Your task to perform on an android device: turn off location Image 0: 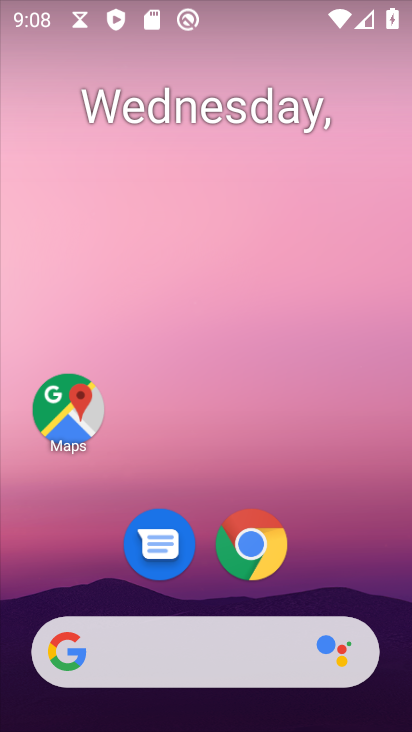
Step 0: drag from (159, 646) to (311, 103)
Your task to perform on an android device: turn off location Image 1: 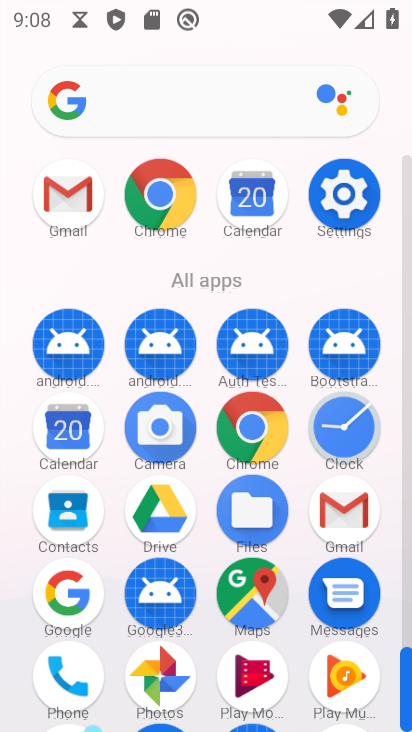
Step 1: click (346, 190)
Your task to perform on an android device: turn off location Image 2: 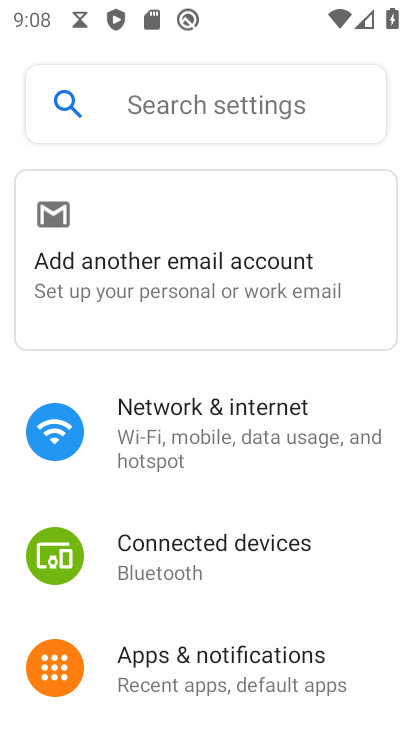
Step 2: drag from (252, 587) to (406, 183)
Your task to perform on an android device: turn off location Image 3: 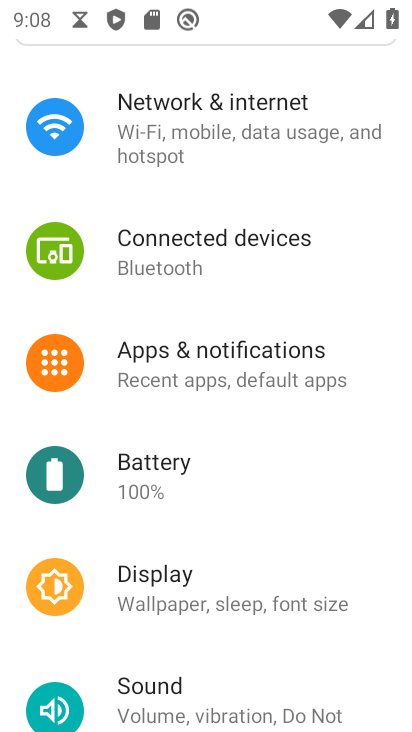
Step 3: drag from (237, 563) to (342, 79)
Your task to perform on an android device: turn off location Image 4: 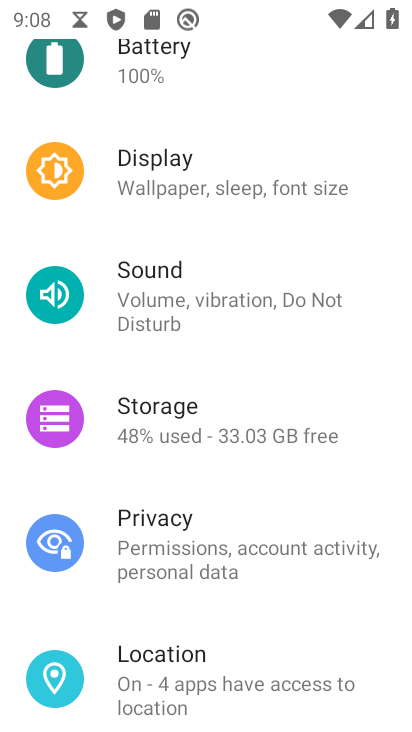
Step 4: click (190, 666)
Your task to perform on an android device: turn off location Image 5: 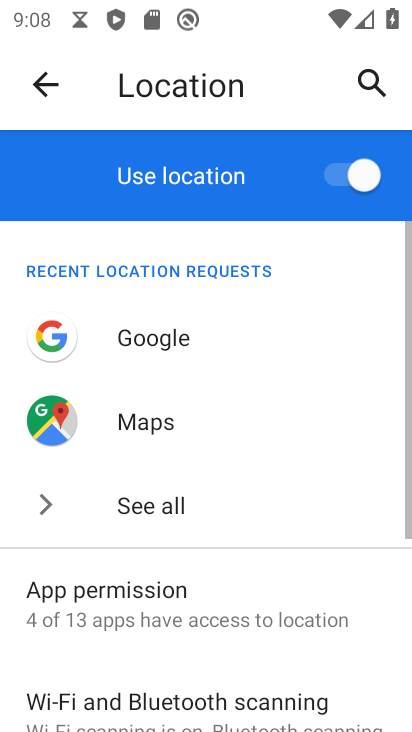
Step 5: click (341, 170)
Your task to perform on an android device: turn off location Image 6: 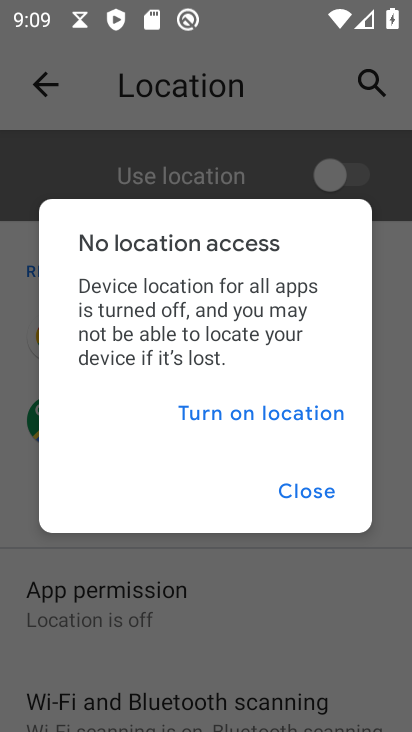
Step 6: task complete